Your task to perform on an android device: open chrome and create a bookmark for the current page Image 0: 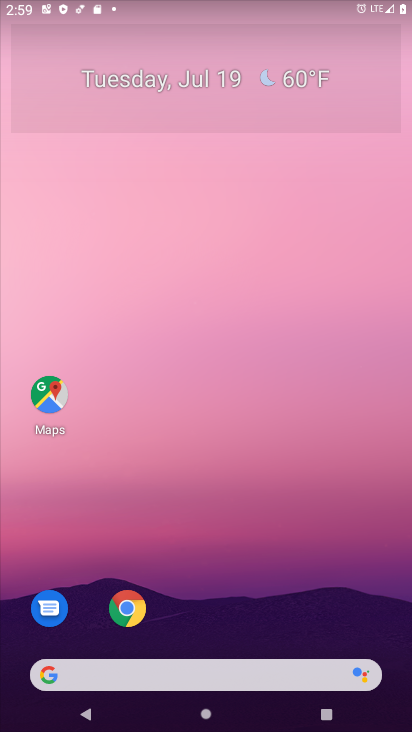
Step 0: drag from (273, 617) to (182, 53)
Your task to perform on an android device: open chrome and create a bookmark for the current page Image 1: 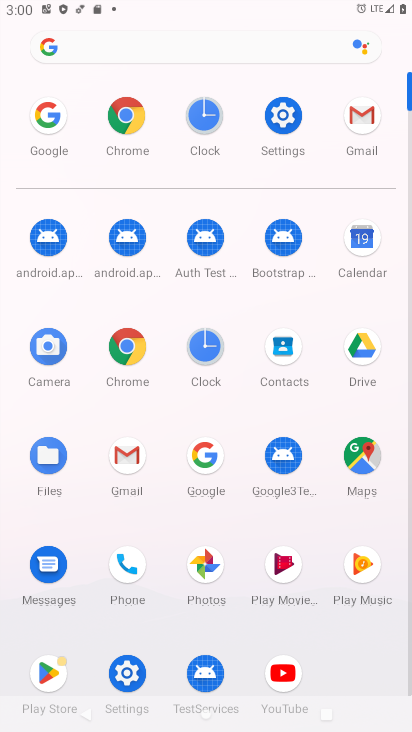
Step 1: click (133, 135)
Your task to perform on an android device: open chrome and create a bookmark for the current page Image 2: 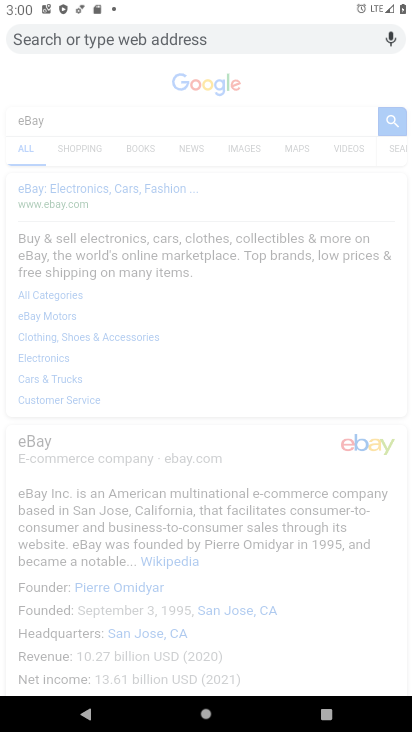
Step 2: task complete